Your task to perform on an android device: check the backup settings in the google photos Image 0: 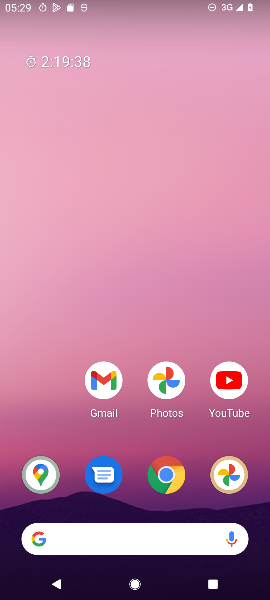
Step 0: press home button
Your task to perform on an android device: check the backup settings in the google photos Image 1: 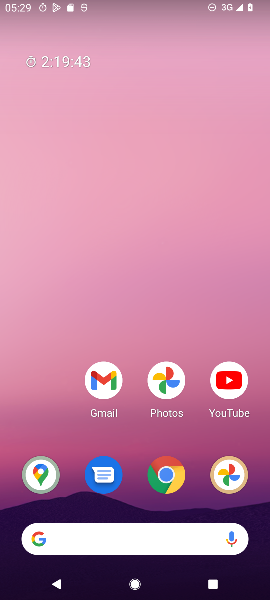
Step 1: drag from (52, 428) to (61, 209)
Your task to perform on an android device: check the backup settings in the google photos Image 2: 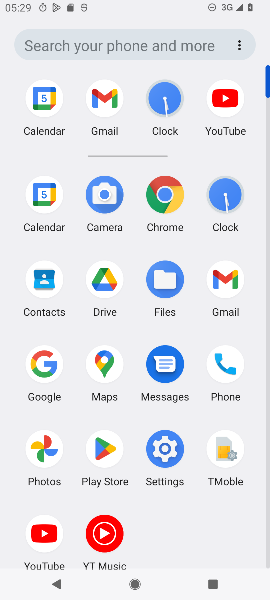
Step 2: click (50, 448)
Your task to perform on an android device: check the backup settings in the google photos Image 3: 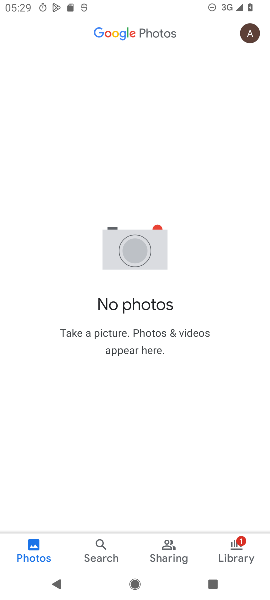
Step 3: click (250, 34)
Your task to perform on an android device: check the backup settings in the google photos Image 4: 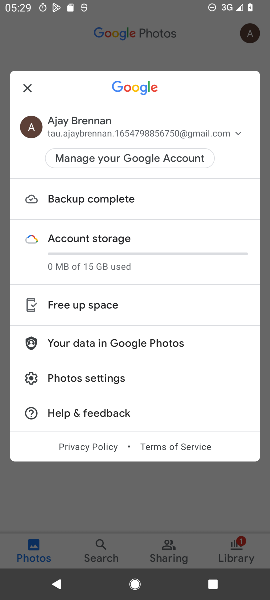
Step 4: click (112, 382)
Your task to perform on an android device: check the backup settings in the google photos Image 5: 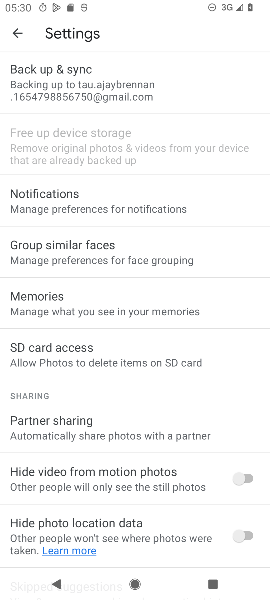
Step 5: click (120, 86)
Your task to perform on an android device: check the backup settings in the google photos Image 6: 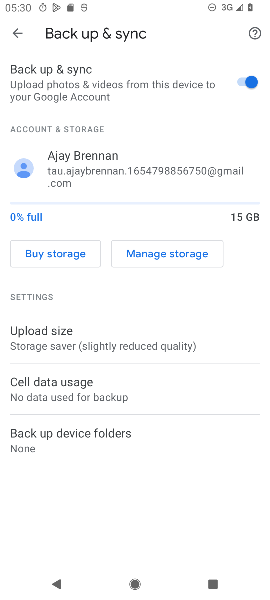
Step 6: task complete